Your task to perform on an android device: Do I have any events this weekend? Image 0: 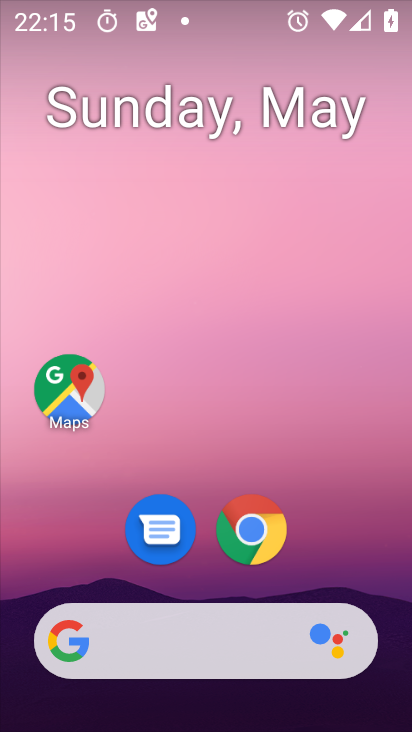
Step 0: drag from (362, 512) to (348, 7)
Your task to perform on an android device: Do I have any events this weekend? Image 1: 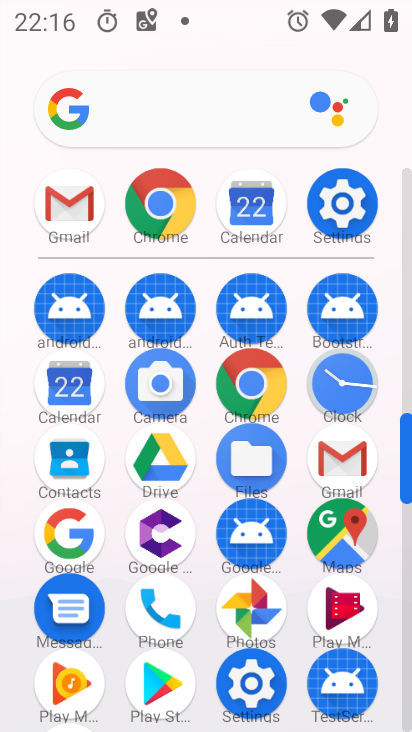
Step 1: click (262, 214)
Your task to perform on an android device: Do I have any events this weekend? Image 2: 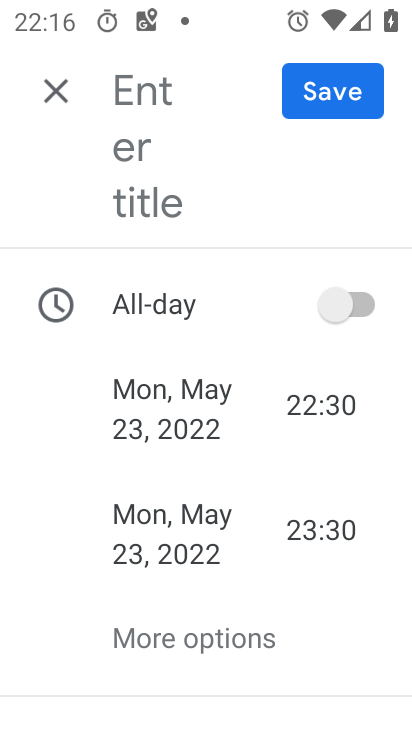
Step 2: click (55, 88)
Your task to perform on an android device: Do I have any events this weekend? Image 3: 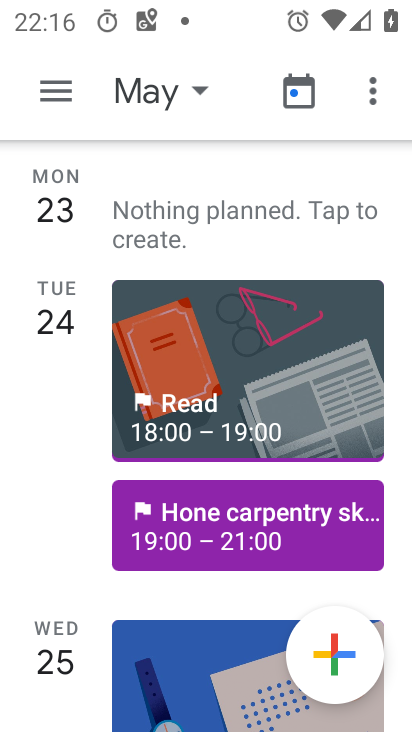
Step 3: click (199, 91)
Your task to perform on an android device: Do I have any events this weekend? Image 4: 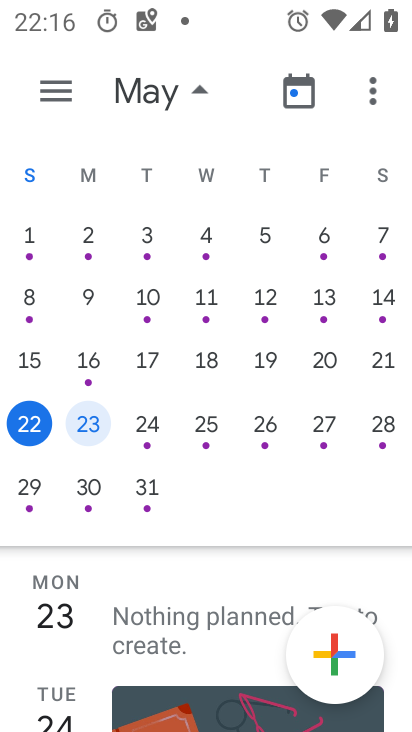
Step 4: click (61, 92)
Your task to perform on an android device: Do I have any events this weekend? Image 5: 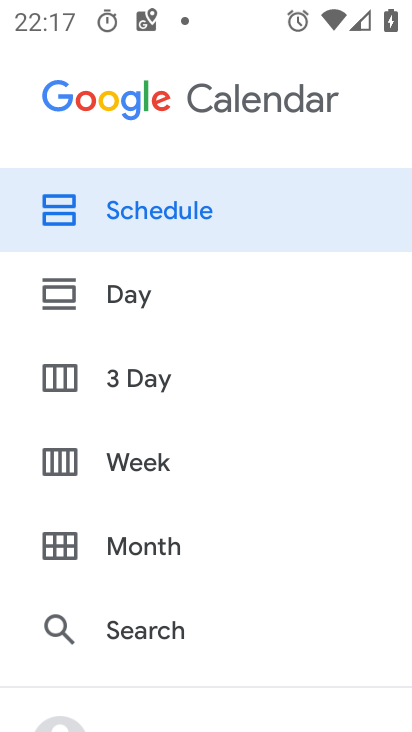
Step 5: click (114, 460)
Your task to perform on an android device: Do I have any events this weekend? Image 6: 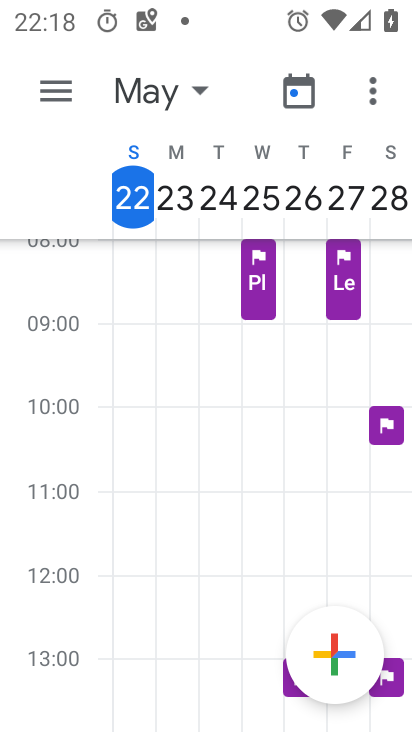
Step 6: drag from (341, 502) to (362, 281)
Your task to perform on an android device: Do I have any events this weekend? Image 7: 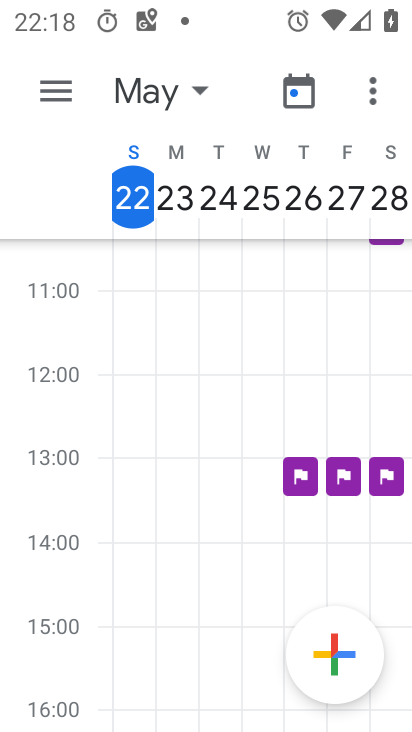
Step 7: click (385, 485)
Your task to perform on an android device: Do I have any events this weekend? Image 8: 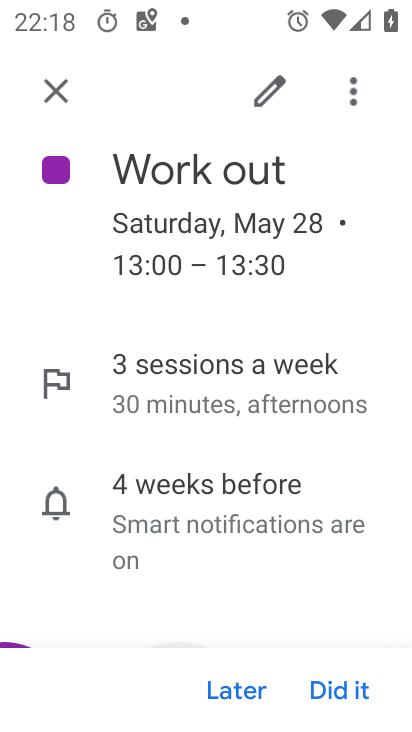
Step 8: task complete